Your task to perform on an android device: Find coffee shops on Maps Image 0: 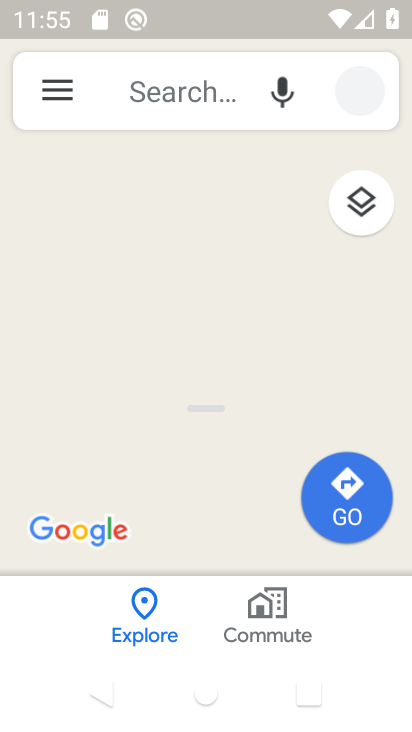
Step 0: press home button
Your task to perform on an android device: Find coffee shops on Maps Image 1: 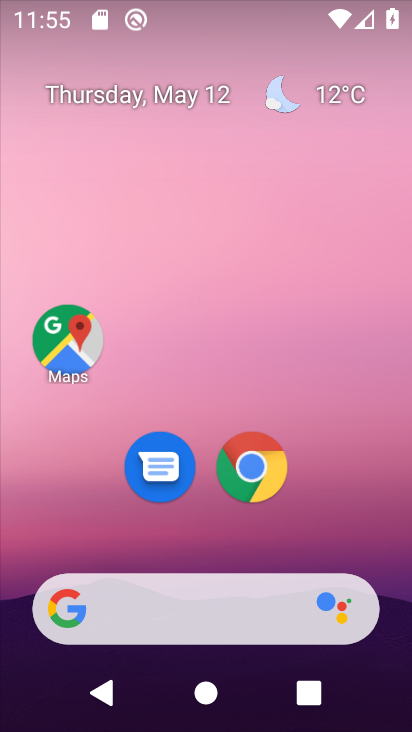
Step 1: click (72, 341)
Your task to perform on an android device: Find coffee shops on Maps Image 2: 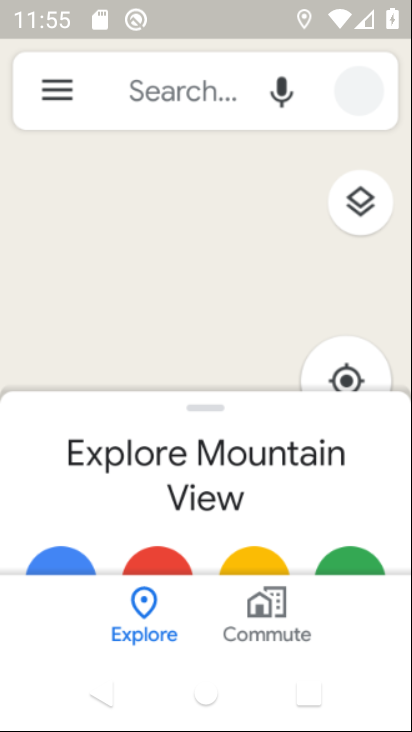
Step 2: click (182, 100)
Your task to perform on an android device: Find coffee shops on Maps Image 3: 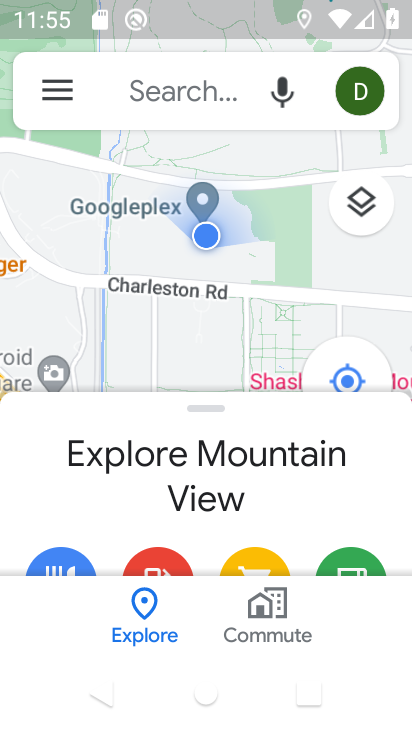
Step 3: click (169, 78)
Your task to perform on an android device: Find coffee shops on Maps Image 4: 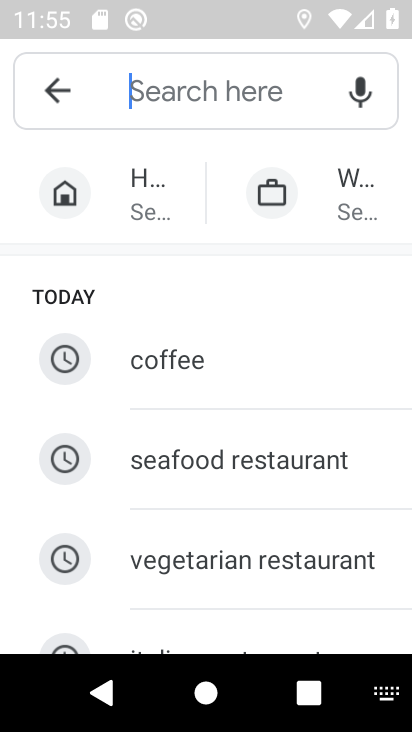
Step 4: click (162, 353)
Your task to perform on an android device: Find coffee shops on Maps Image 5: 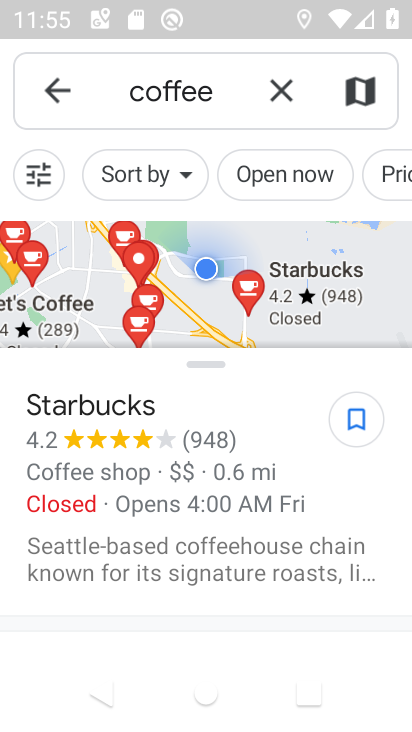
Step 5: task complete